Your task to perform on an android device: Go to wifi settings Image 0: 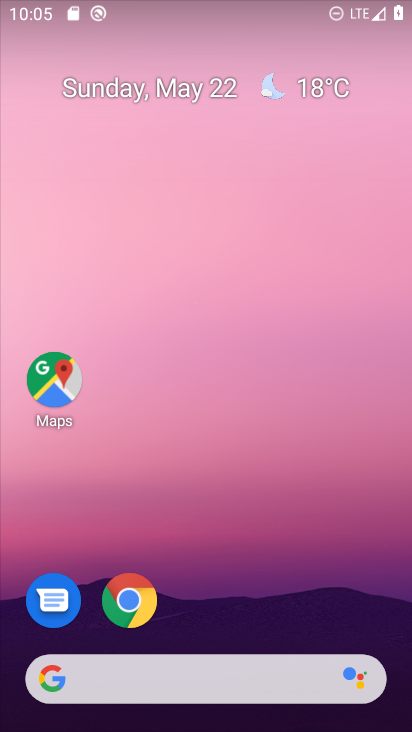
Step 0: drag from (372, 624) to (296, 153)
Your task to perform on an android device: Go to wifi settings Image 1: 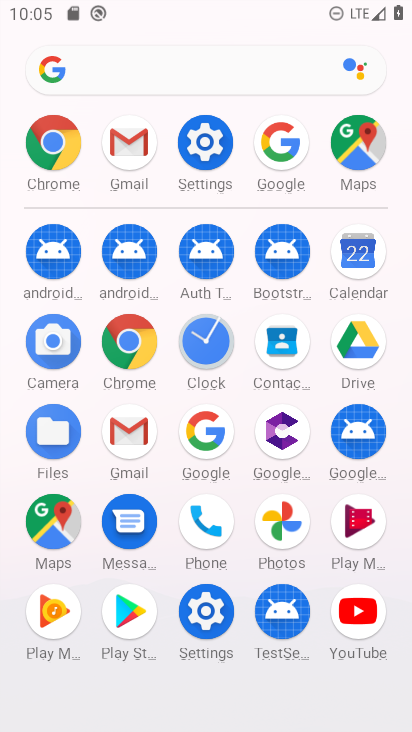
Step 1: drag from (222, 0) to (139, 677)
Your task to perform on an android device: Go to wifi settings Image 2: 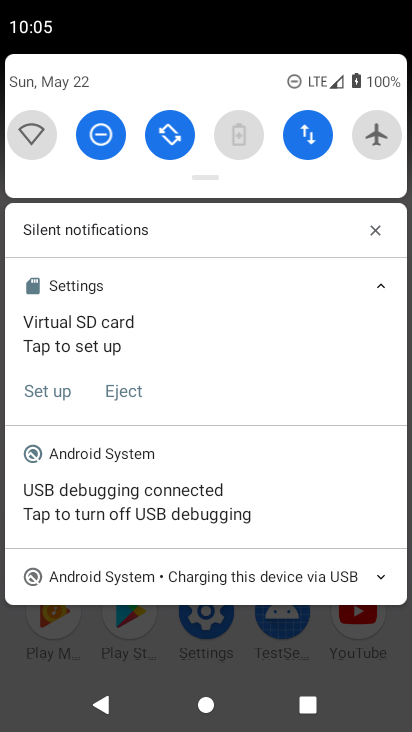
Step 2: drag from (156, 633) to (213, 7)
Your task to perform on an android device: Go to wifi settings Image 3: 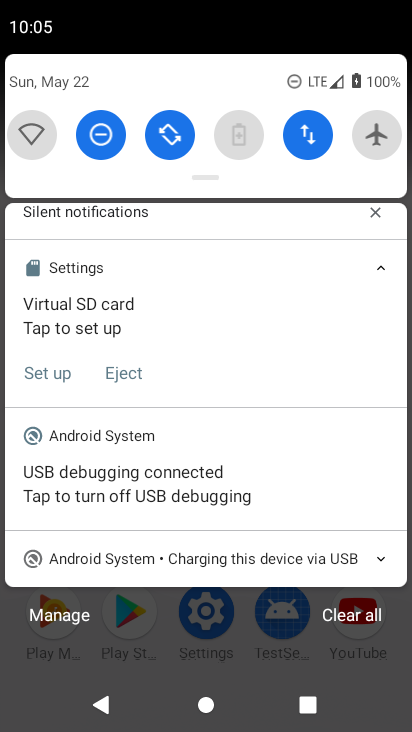
Step 3: press back button
Your task to perform on an android device: Go to wifi settings Image 4: 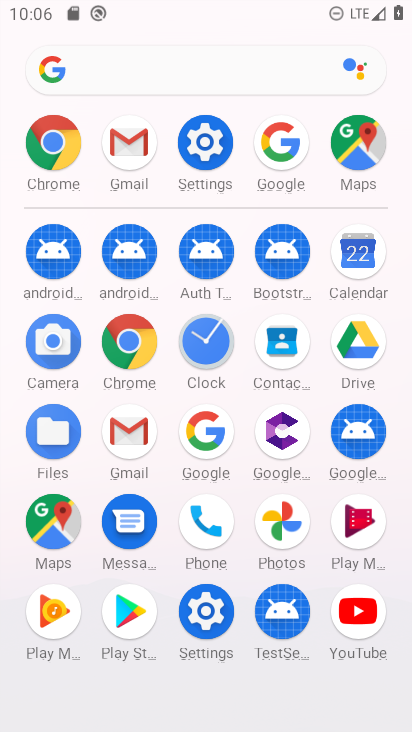
Step 4: click (215, 163)
Your task to perform on an android device: Go to wifi settings Image 5: 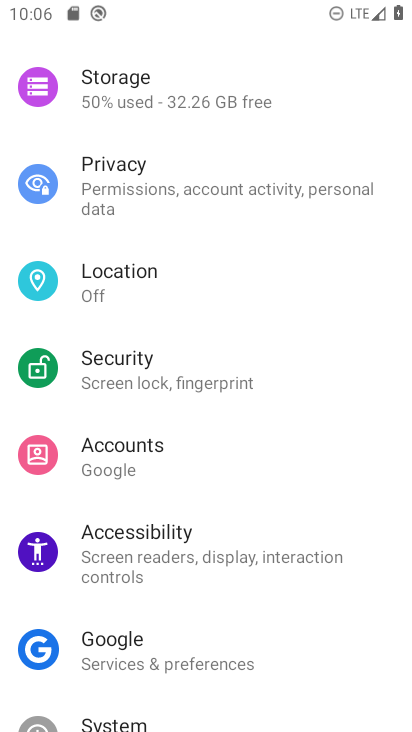
Step 5: drag from (189, 145) to (153, 641)
Your task to perform on an android device: Go to wifi settings Image 6: 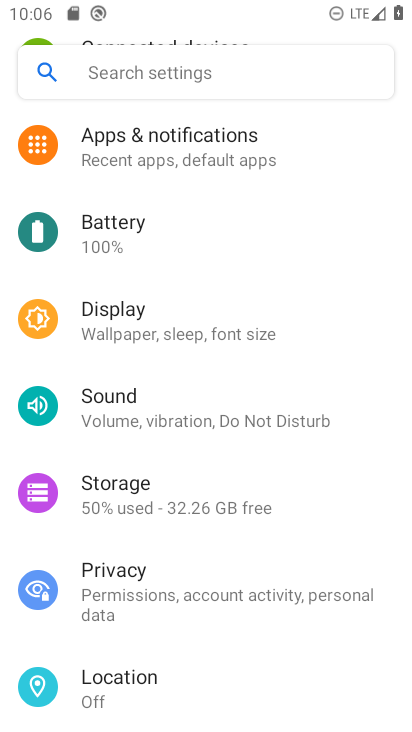
Step 6: drag from (154, 188) to (151, 665)
Your task to perform on an android device: Go to wifi settings Image 7: 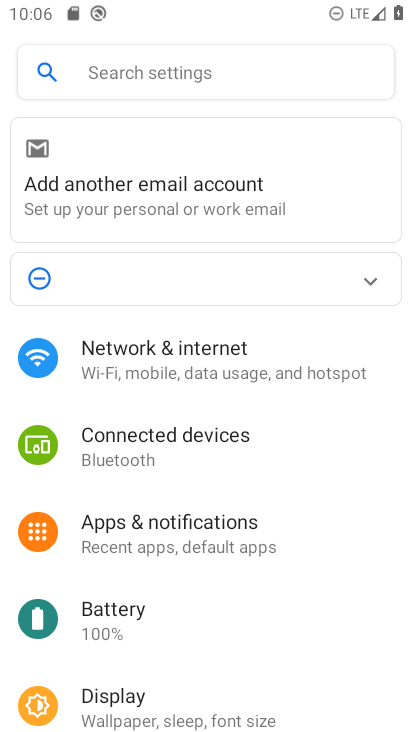
Step 7: click (195, 348)
Your task to perform on an android device: Go to wifi settings Image 8: 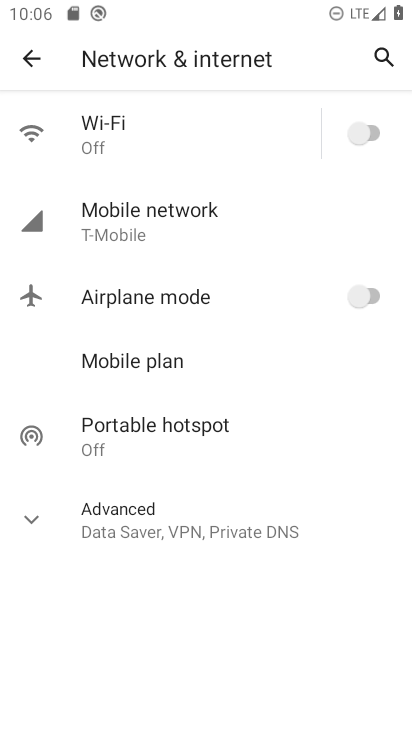
Step 8: click (99, 135)
Your task to perform on an android device: Go to wifi settings Image 9: 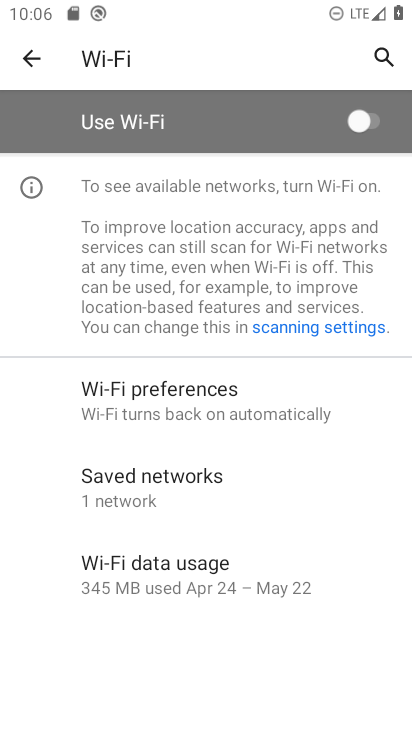
Step 9: task complete